Your task to perform on an android device: turn on improve location accuracy Image 0: 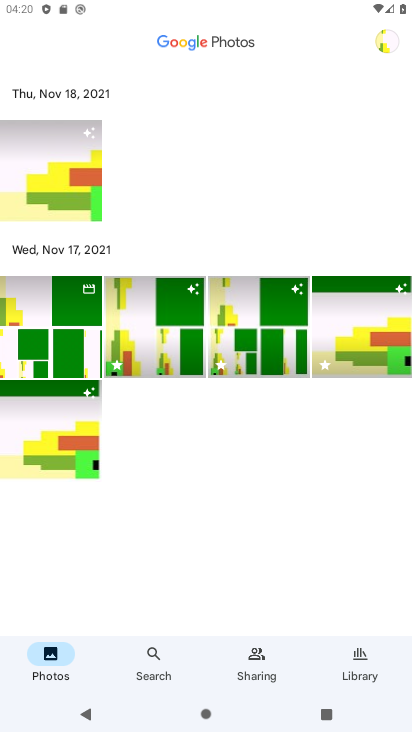
Step 0: press home button
Your task to perform on an android device: turn on improve location accuracy Image 1: 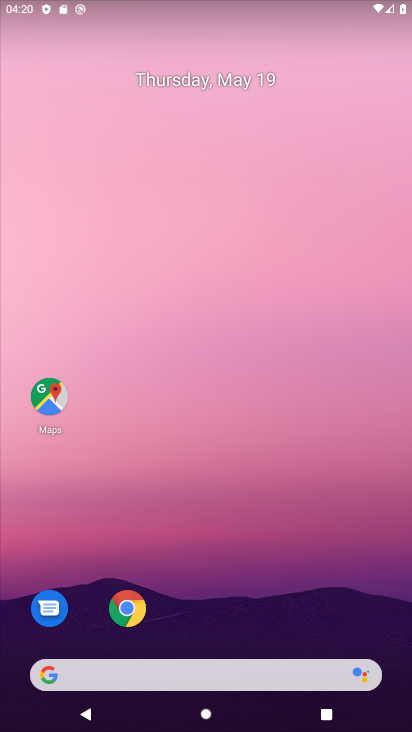
Step 1: drag from (258, 614) to (229, 134)
Your task to perform on an android device: turn on improve location accuracy Image 2: 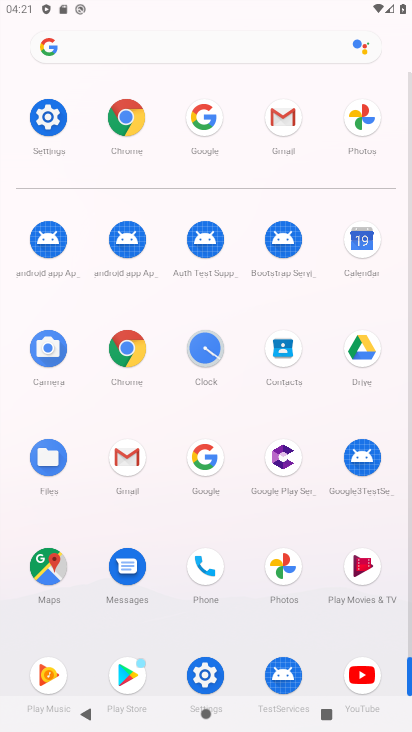
Step 2: click (204, 676)
Your task to perform on an android device: turn on improve location accuracy Image 3: 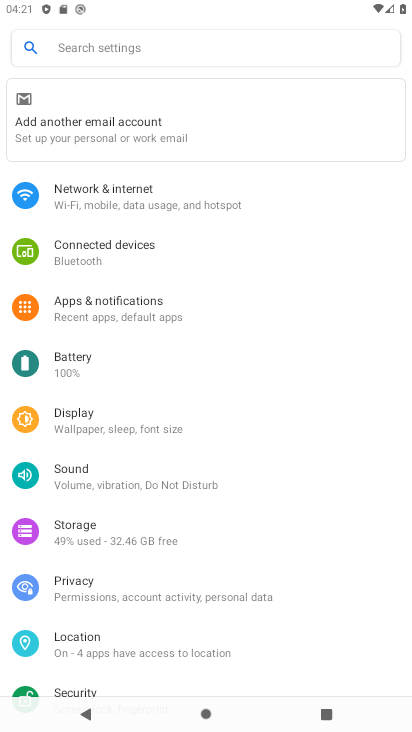
Step 3: drag from (138, 532) to (172, 445)
Your task to perform on an android device: turn on improve location accuracy Image 4: 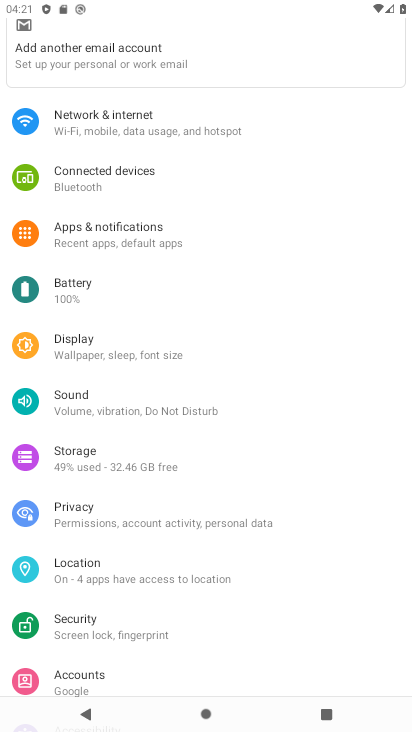
Step 4: drag from (115, 592) to (156, 508)
Your task to perform on an android device: turn on improve location accuracy Image 5: 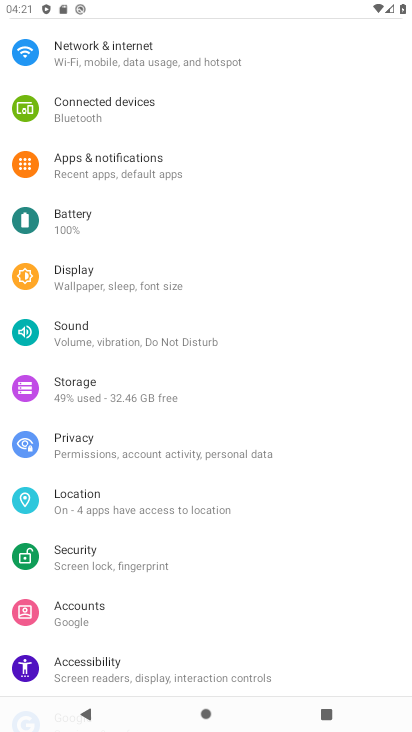
Step 5: click (87, 498)
Your task to perform on an android device: turn on improve location accuracy Image 6: 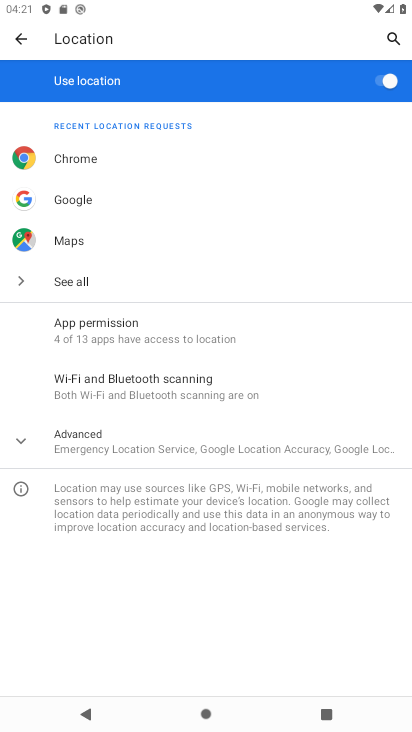
Step 6: click (123, 437)
Your task to perform on an android device: turn on improve location accuracy Image 7: 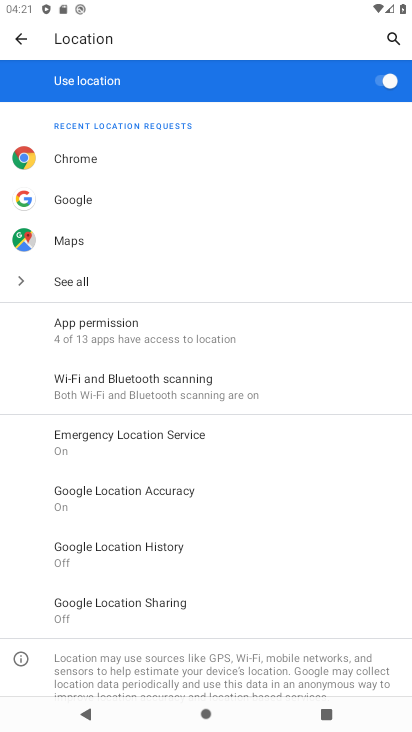
Step 7: click (146, 498)
Your task to perform on an android device: turn on improve location accuracy Image 8: 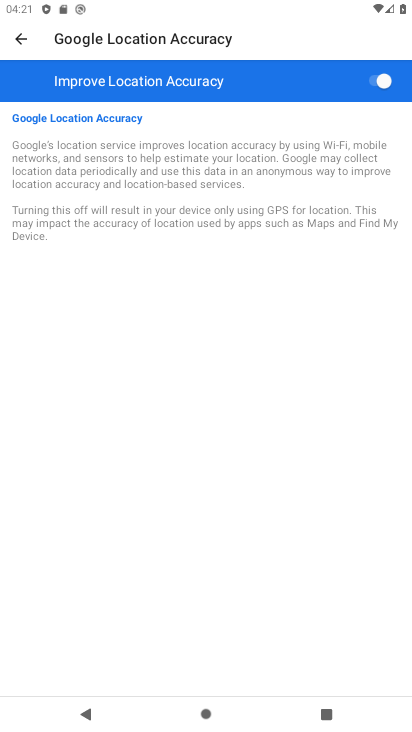
Step 8: task complete